Your task to perform on an android device: Is it going to rain this weekend? Image 0: 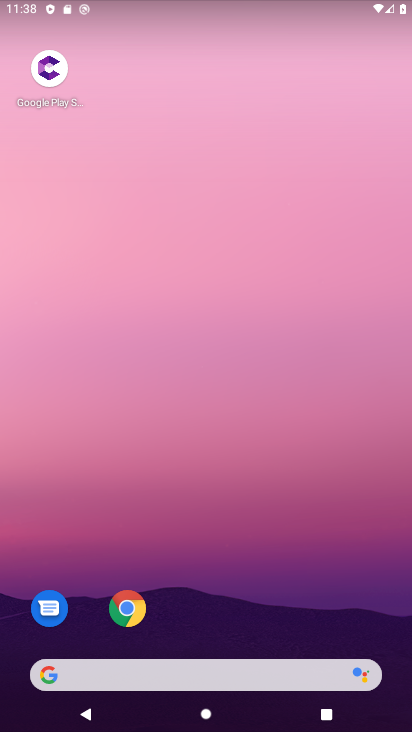
Step 0: drag from (244, 571) to (237, 31)
Your task to perform on an android device: Is it going to rain this weekend? Image 1: 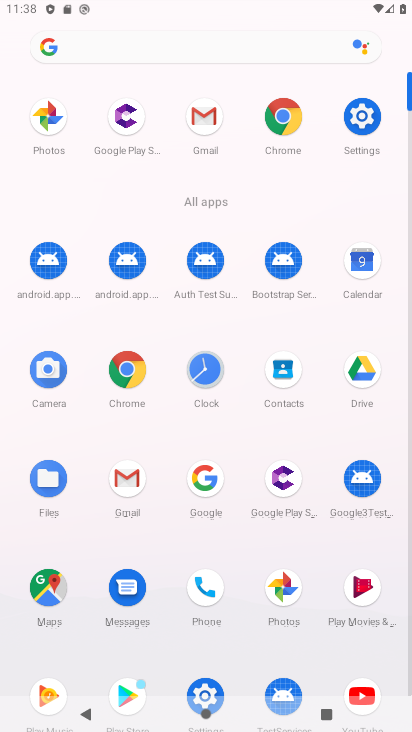
Step 1: drag from (4, 593) to (25, 197)
Your task to perform on an android device: Is it going to rain this weekend? Image 2: 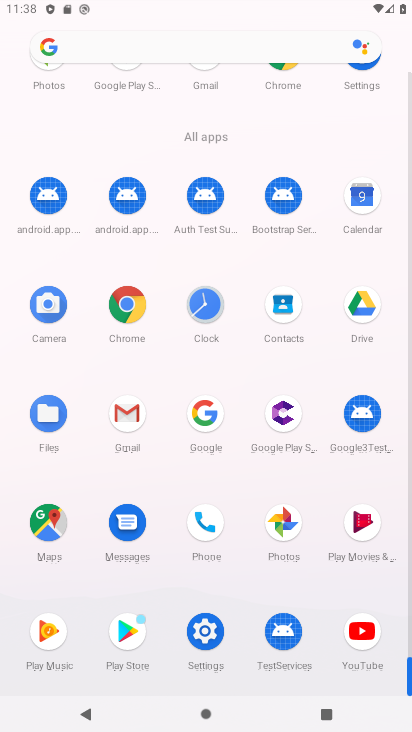
Step 2: click (125, 303)
Your task to perform on an android device: Is it going to rain this weekend? Image 3: 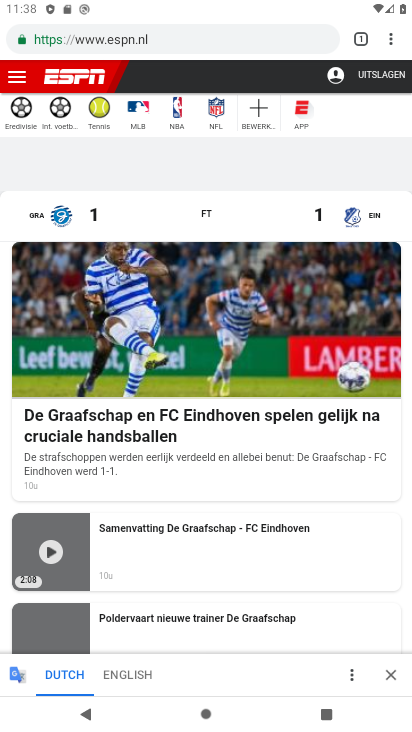
Step 3: click (160, 31)
Your task to perform on an android device: Is it going to rain this weekend? Image 4: 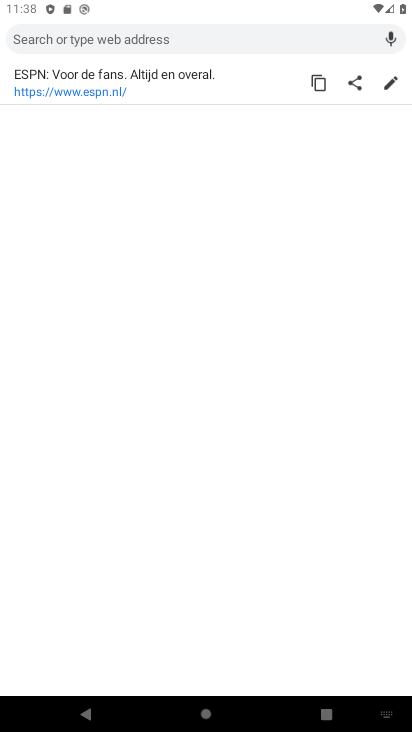
Step 4: type "Is it going to rain this weekend?"
Your task to perform on an android device: Is it going to rain this weekend? Image 5: 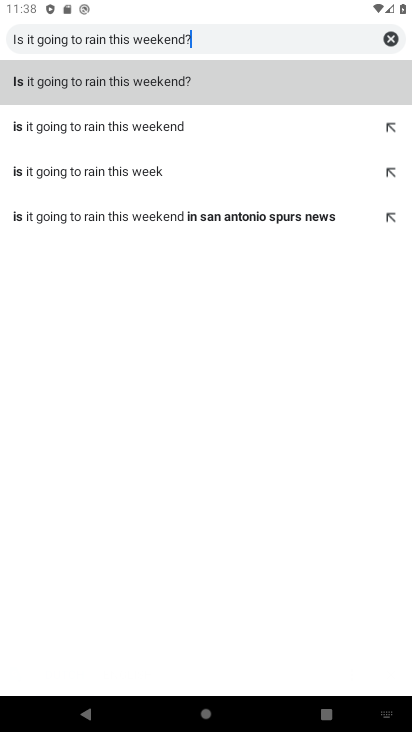
Step 5: type ""
Your task to perform on an android device: Is it going to rain this weekend? Image 6: 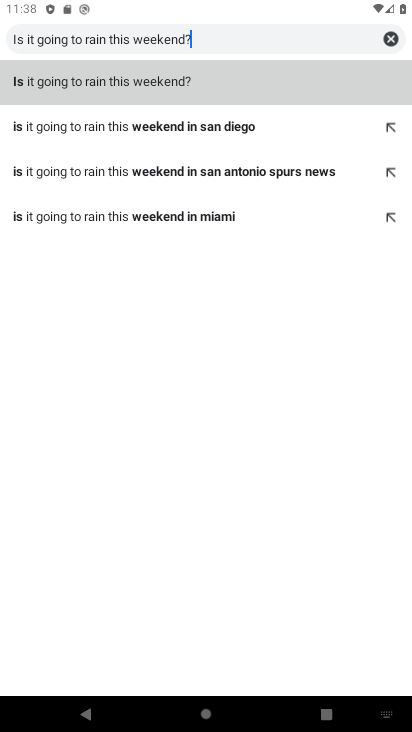
Step 6: click (155, 84)
Your task to perform on an android device: Is it going to rain this weekend? Image 7: 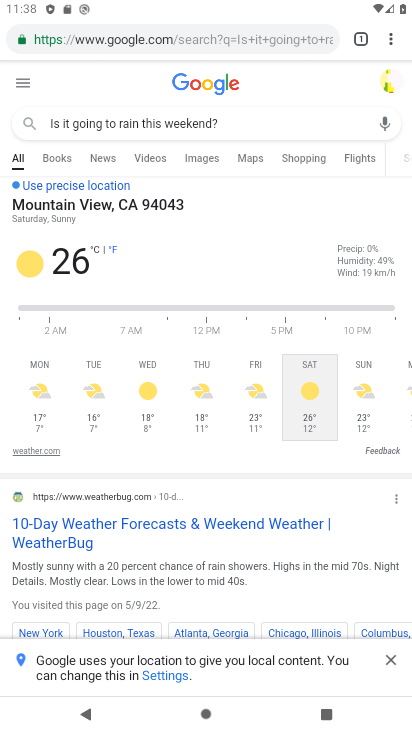
Step 7: task complete